Your task to perform on an android device: toggle javascript in the chrome app Image 0: 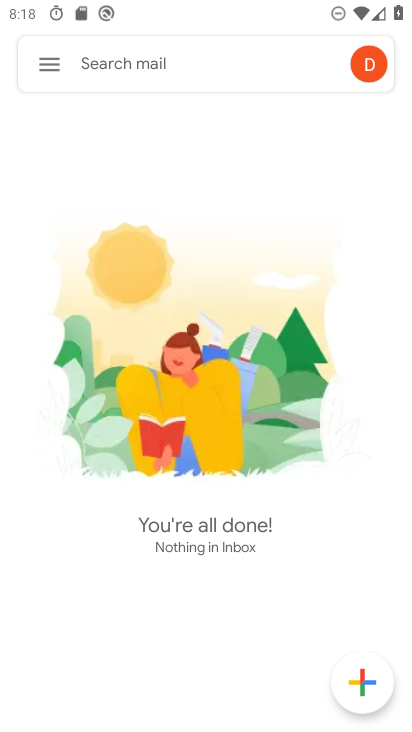
Step 0: press home button
Your task to perform on an android device: toggle javascript in the chrome app Image 1: 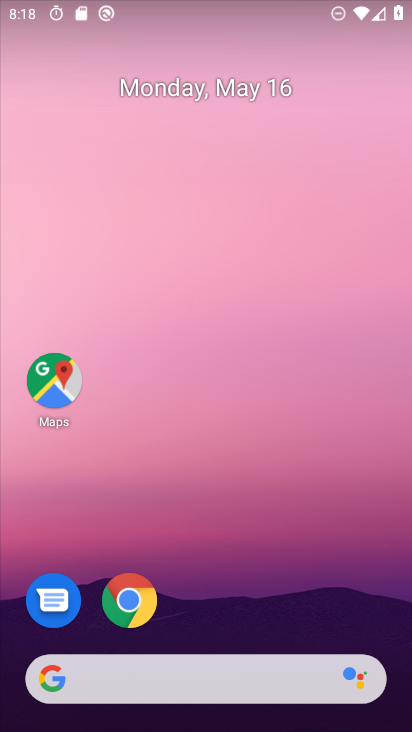
Step 1: click (123, 603)
Your task to perform on an android device: toggle javascript in the chrome app Image 2: 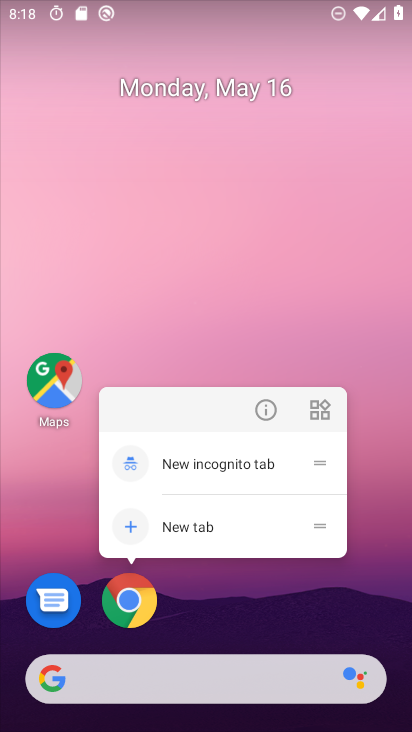
Step 2: click (130, 606)
Your task to perform on an android device: toggle javascript in the chrome app Image 3: 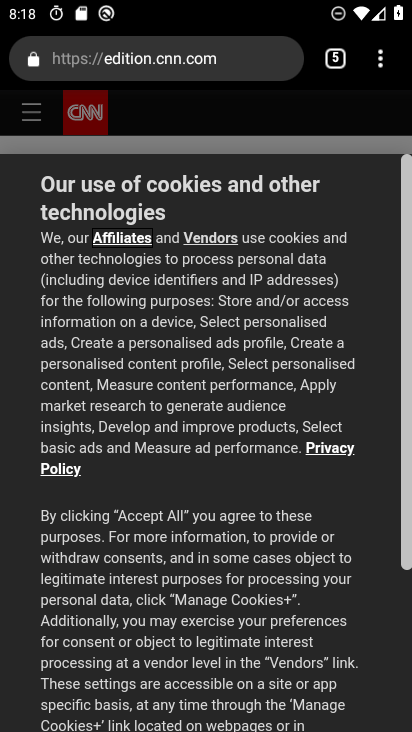
Step 3: drag from (380, 66) to (206, 641)
Your task to perform on an android device: toggle javascript in the chrome app Image 4: 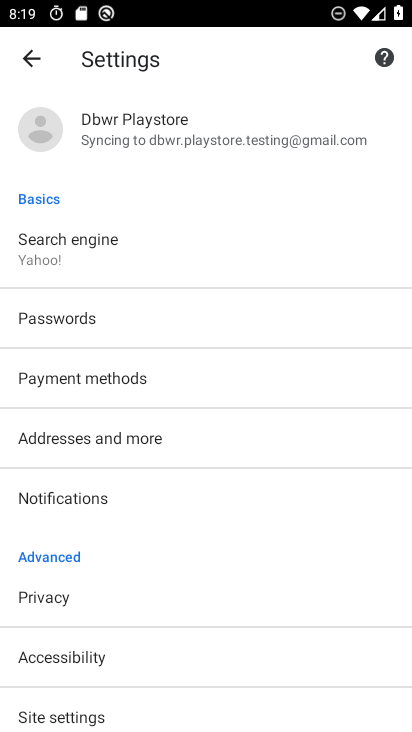
Step 4: click (87, 711)
Your task to perform on an android device: toggle javascript in the chrome app Image 5: 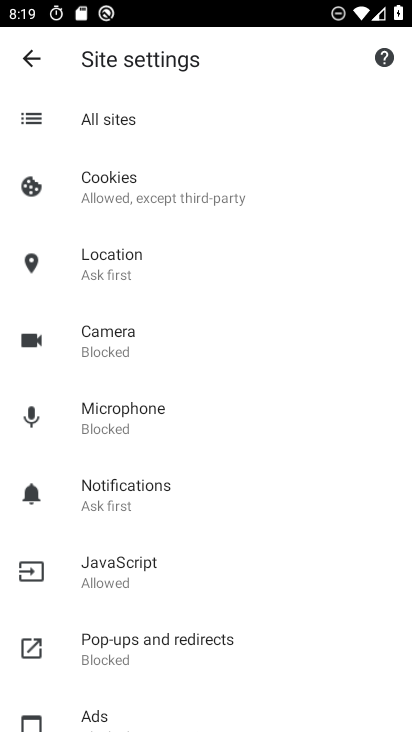
Step 5: click (124, 571)
Your task to perform on an android device: toggle javascript in the chrome app Image 6: 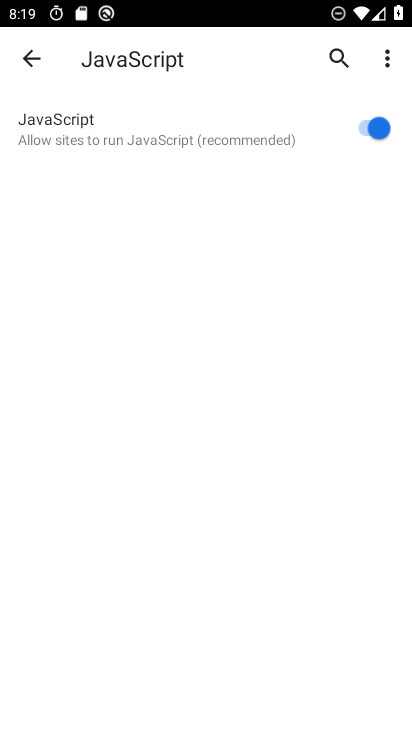
Step 6: click (363, 130)
Your task to perform on an android device: toggle javascript in the chrome app Image 7: 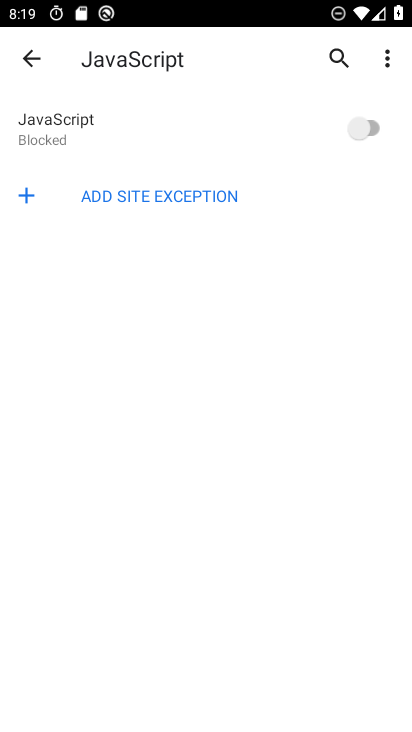
Step 7: task complete